Your task to perform on an android device: show emergency info Image 0: 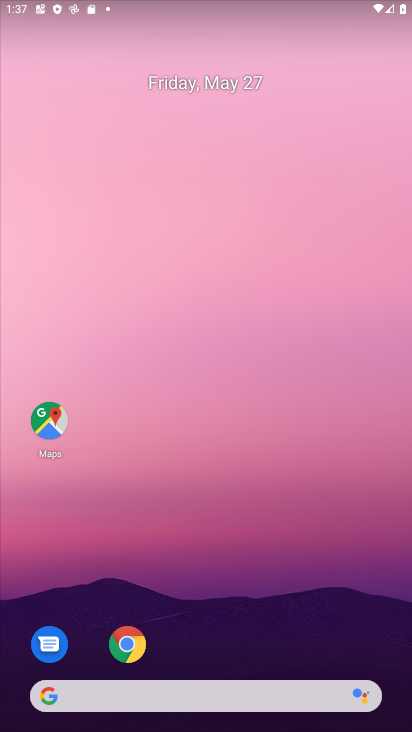
Step 0: drag from (343, 631) to (208, 62)
Your task to perform on an android device: show emergency info Image 1: 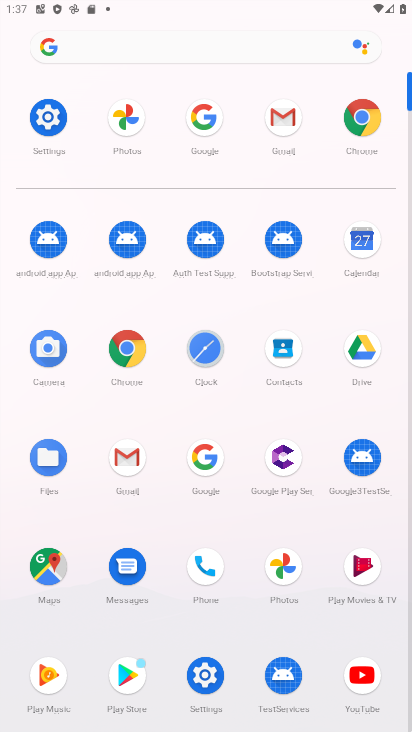
Step 1: click (203, 674)
Your task to perform on an android device: show emergency info Image 2: 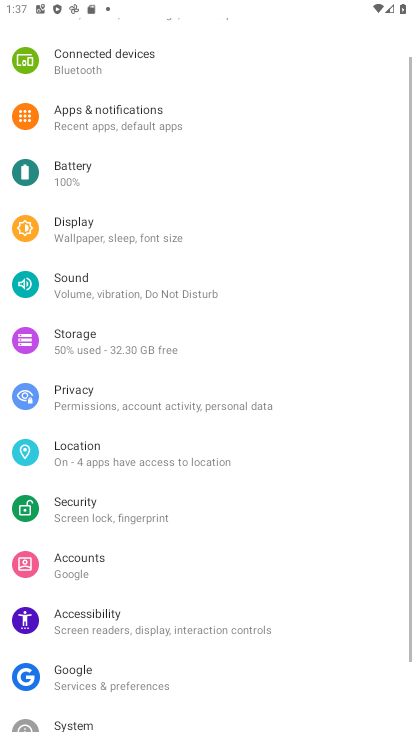
Step 2: drag from (180, 663) to (187, 43)
Your task to perform on an android device: show emergency info Image 3: 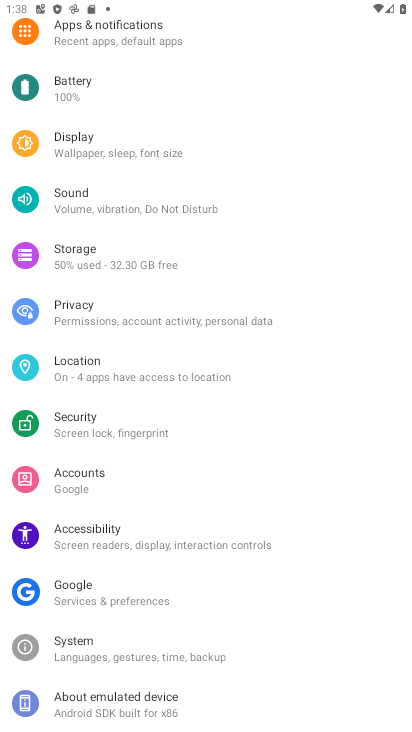
Step 3: click (150, 702)
Your task to perform on an android device: show emergency info Image 4: 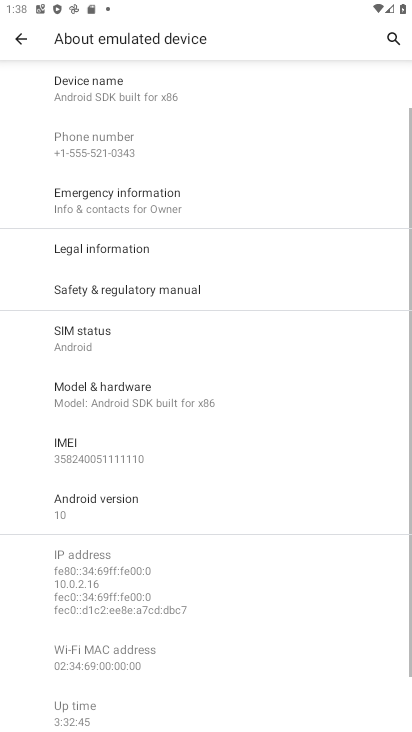
Step 4: click (188, 215)
Your task to perform on an android device: show emergency info Image 5: 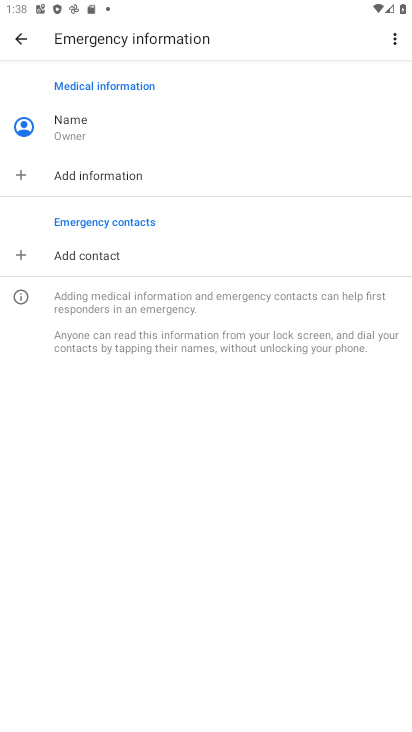
Step 5: task complete